Your task to perform on an android device: set an alarm Image 0: 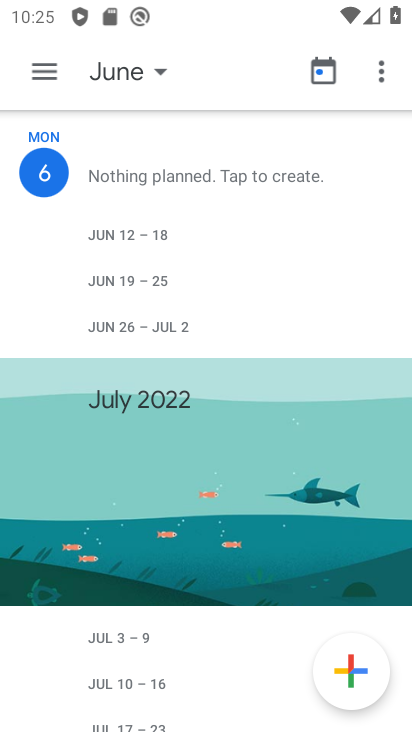
Step 0: press home button
Your task to perform on an android device: set an alarm Image 1: 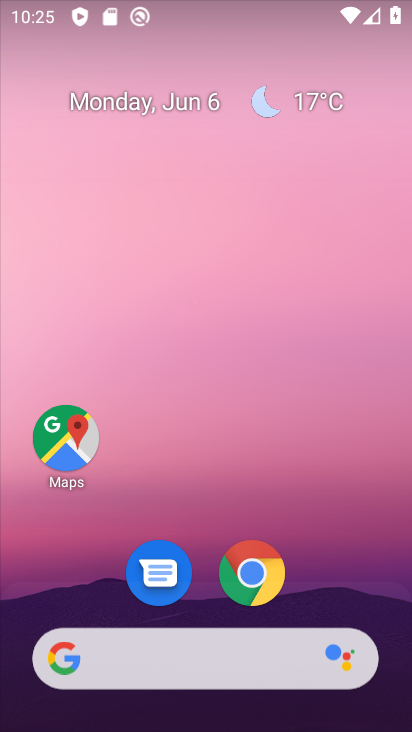
Step 1: drag from (211, 634) to (156, 177)
Your task to perform on an android device: set an alarm Image 2: 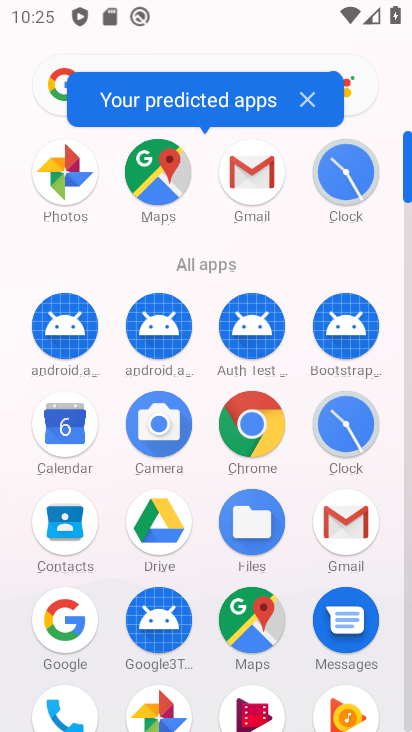
Step 2: click (346, 428)
Your task to perform on an android device: set an alarm Image 3: 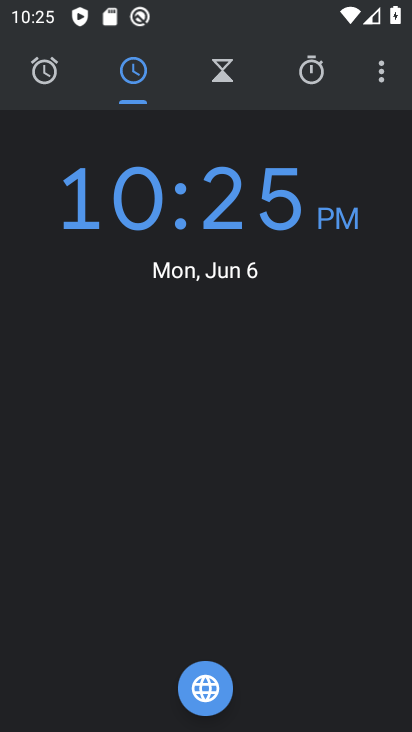
Step 3: click (41, 84)
Your task to perform on an android device: set an alarm Image 4: 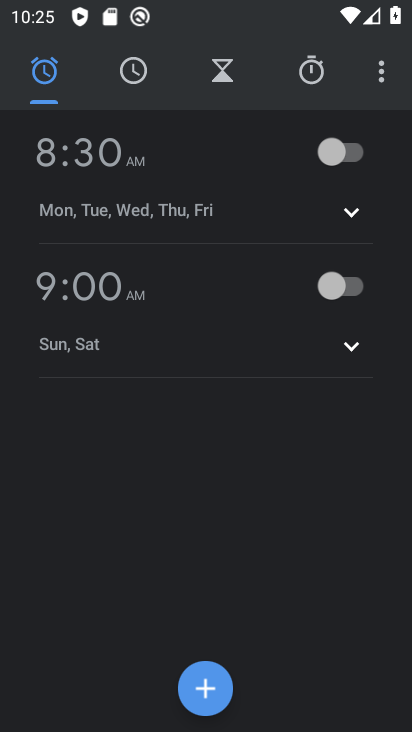
Step 4: click (353, 164)
Your task to perform on an android device: set an alarm Image 5: 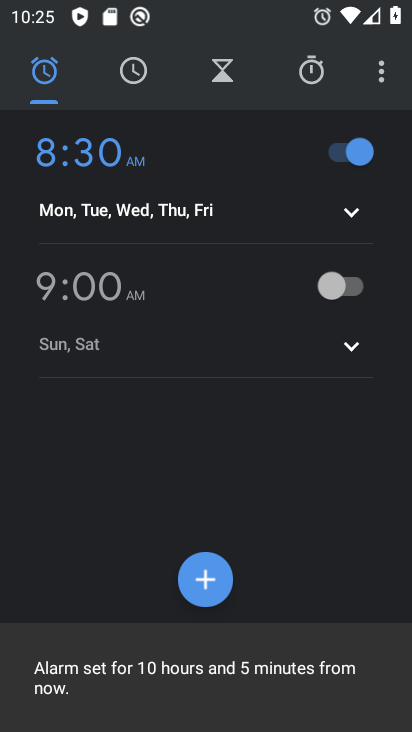
Step 5: task complete